Your task to perform on an android device: Add amazon basics triple a to the cart on ebay, then select checkout. Image 0: 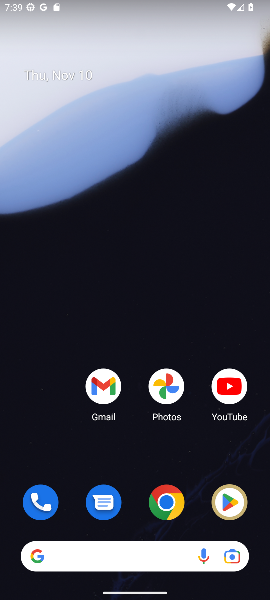
Step 0: drag from (135, 498) to (150, 223)
Your task to perform on an android device: Add amazon basics triple a to the cart on ebay, then select checkout. Image 1: 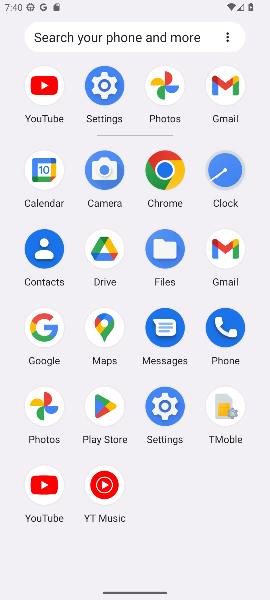
Step 1: click (38, 338)
Your task to perform on an android device: Add amazon basics triple a to the cart on ebay, then select checkout. Image 2: 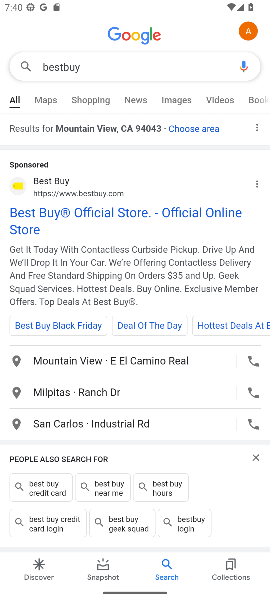
Step 2: click (89, 64)
Your task to perform on an android device: Add amazon basics triple a to the cart on ebay, then select checkout. Image 3: 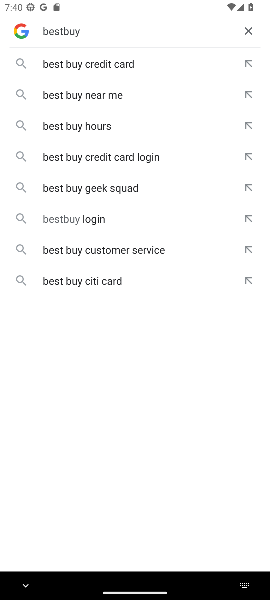
Step 3: click (244, 34)
Your task to perform on an android device: Add amazon basics triple a to the cart on ebay, then select checkout. Image 4: 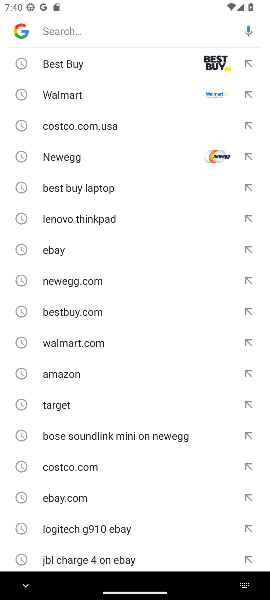
Step 4: click (66, 376)
Your task to perform on an android device: Add amazon basics triple a to the cart on ebay, then select checkout. Image 5: 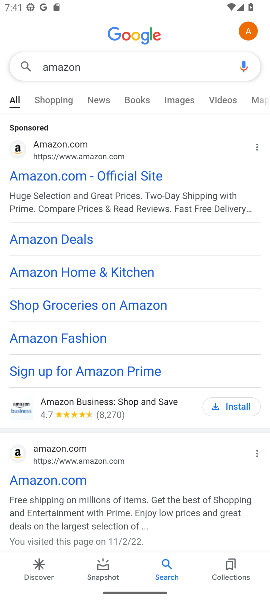
Step 5: click (42, 177)
Your task to perform on an android device: Add amazon basics triple a to the cart on ebay, then select checkout. Image 6: 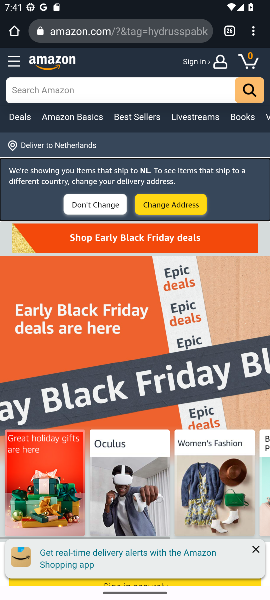
Step 6: click (100, 82)
Your task to perform on an android device: Add amazon basics triple a to the cart on ebay, then select checkout. Image 7: 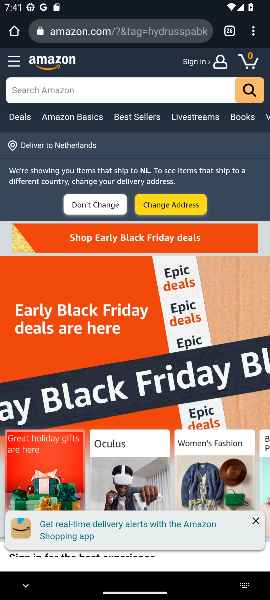
Step 7: type "basics triple a "
Your task to perform on an android device: Add amazon basics triple a to the cart on ebay, then select checkout. Image 8: 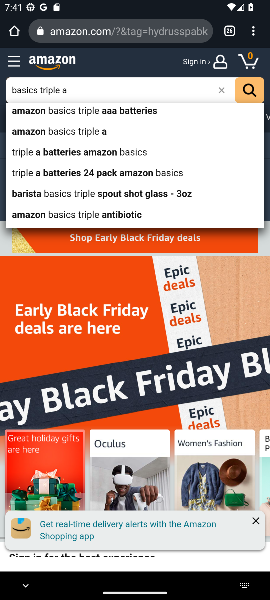
Step 8: click (56, 134)
Your task to perform on an android device: Add amazon basics triple a to the cart on ebay, then select checkout. Image 9: 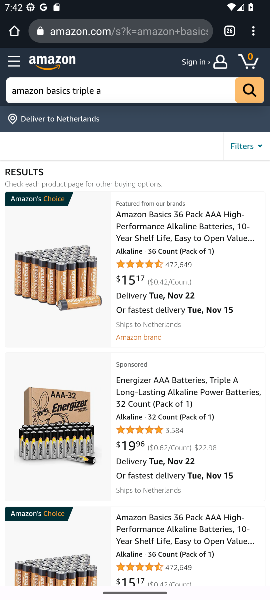
Step 9: click (135, 218)
Your task to perform on an android device: Add amazon basics triple a to the cart on ebay, then select checkout. Image 10: 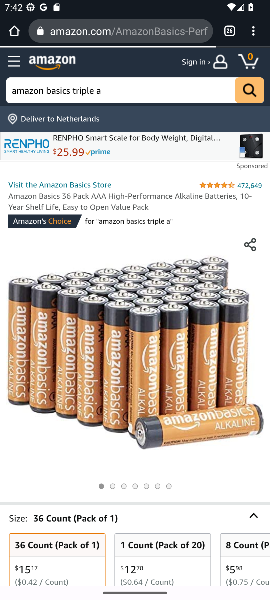
Step 10: drag from (134, 407) to (144, 230)
Your task to perform on an android device: Add amazon basics triple a to the cart on ebay, then select checkout. Image 11: 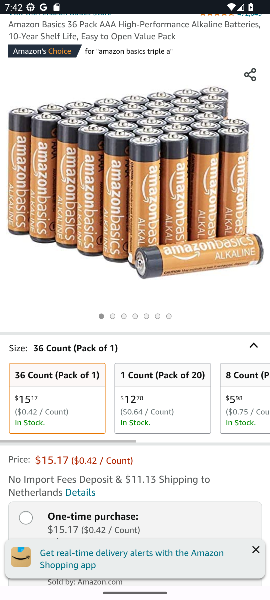
Step 11: drag from (111, 273) to (110, 142)
Your task to perform on an android device: Add amazon basics triple a to the cart on ebay, then select checkout. Image 12: 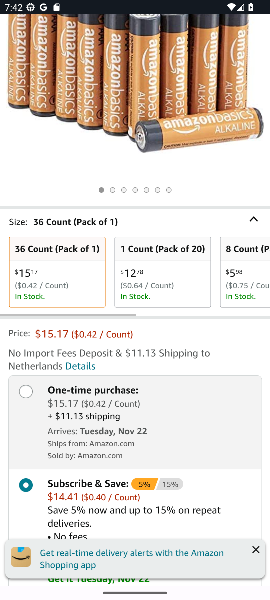
Step 12: drag from (79, 488) to (103, 303)
Your task to perform on an android device: Add amazon basics triple a to the cart on ebay, then select checkout. Image 13: 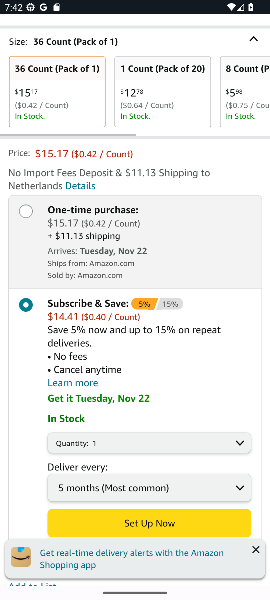
Step 13: click (138, 522)
Your task to perform on an android device: Add amazon basics triple a to the cart on ebay, then select checkout. Image 14: 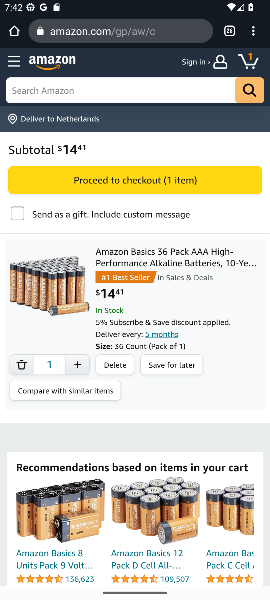
Step 14: click (137, 178)
Your task to perform on an android device: Add amazon basics triple a to the cart on ebay, then select checkout. Image 15: 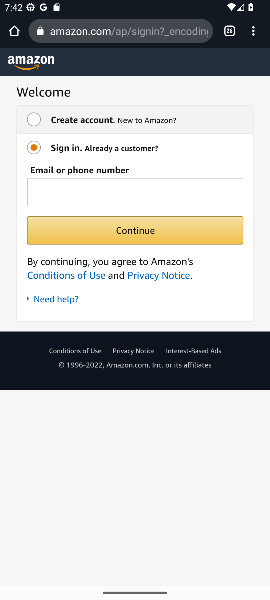
Step 15: task complete